Your task to perform on an android device: Go to Reddit.com Image 0: 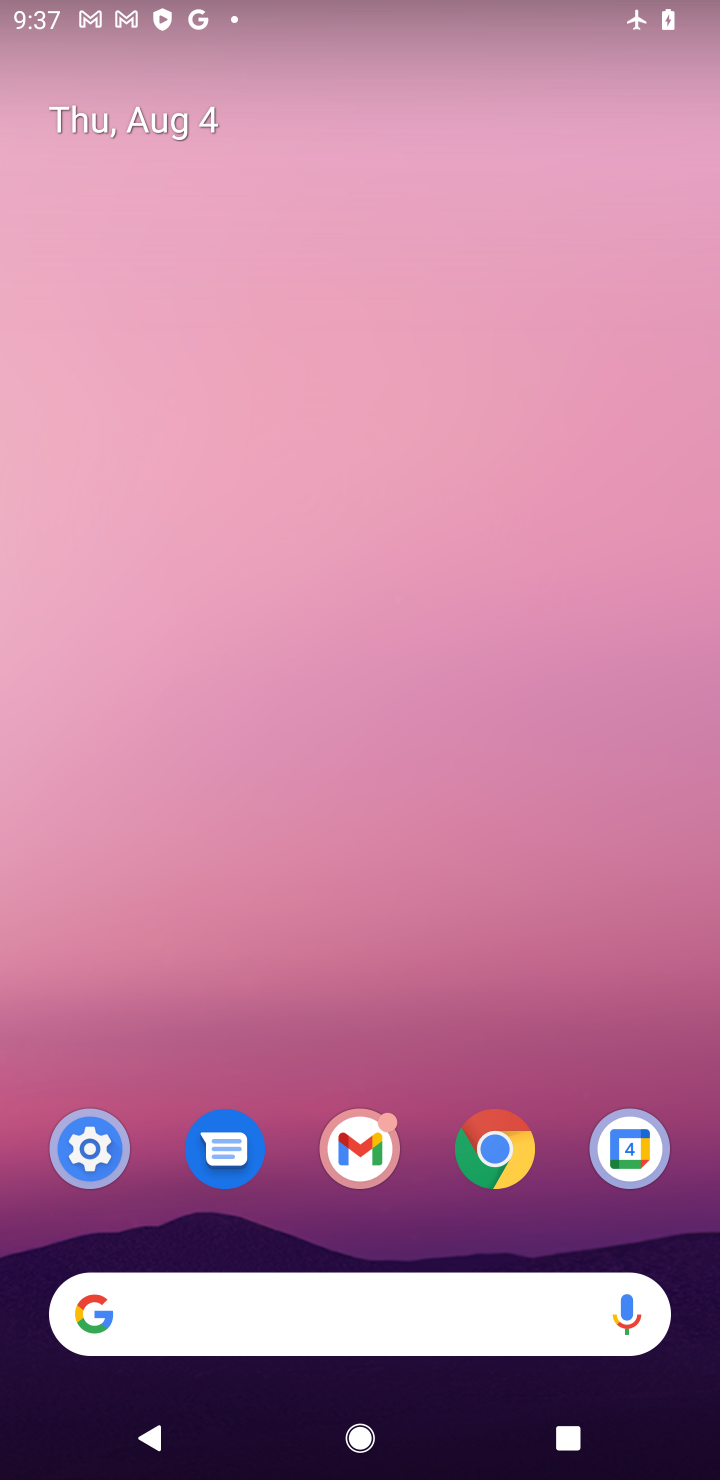
Step 0: click (494, 1136)
Your task to perform on an android device: Go to Reddit.com Image 1: 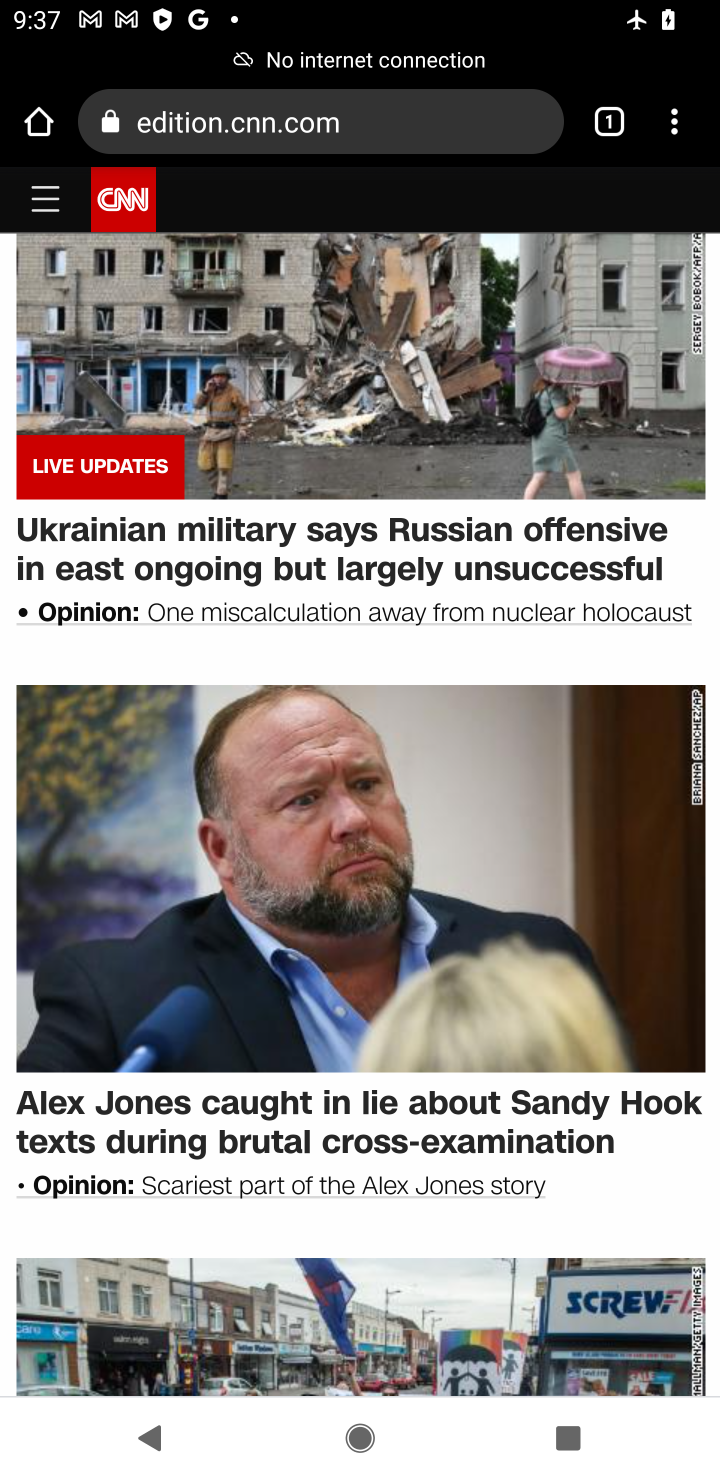
Step 1: click (416, 165)
Your task to perform on an android device: Go to Reddit.com Image 2: 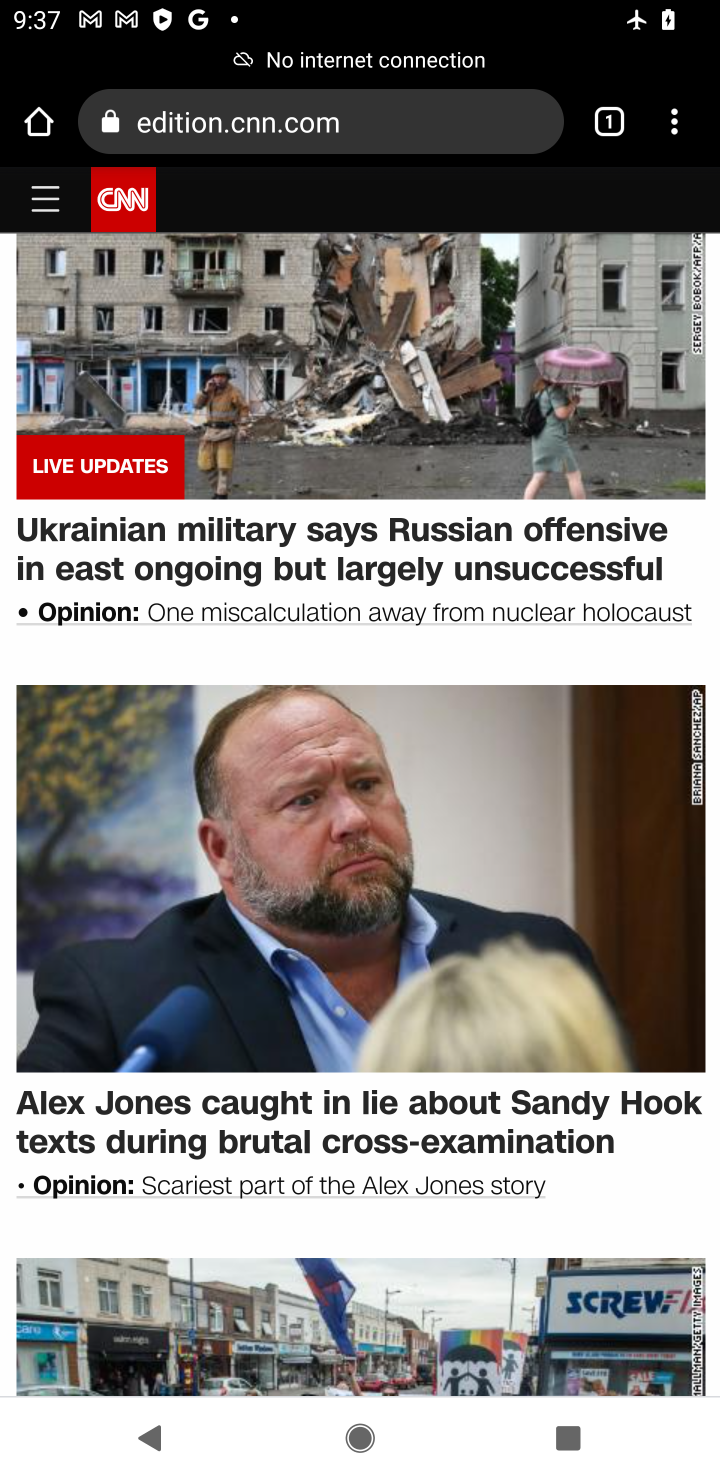
Step 2: click (384, 104)
Your task to perform on an android device: Go to Reddit.com Image 3: 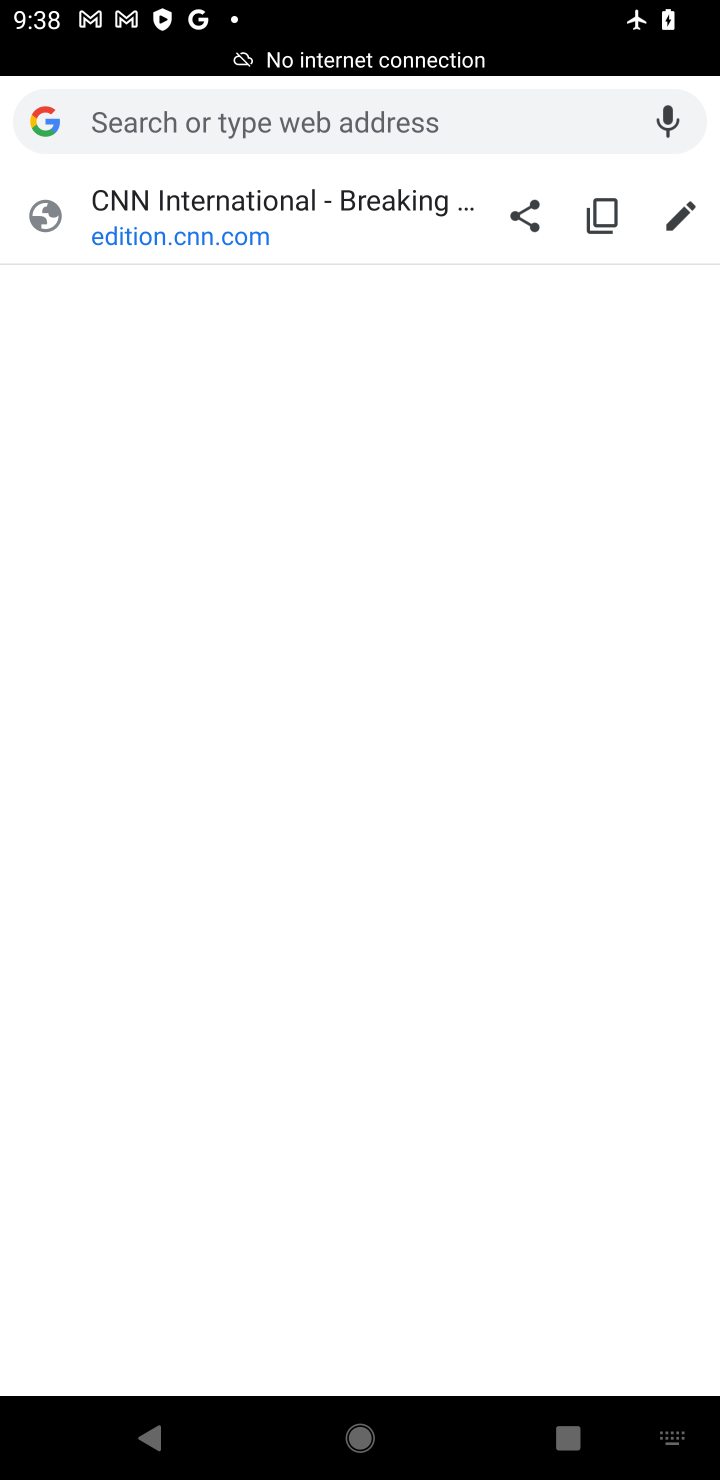
Step 3: type "reddit.com"
Your task to perform on an android device: Go to Reddit.com Image 4: 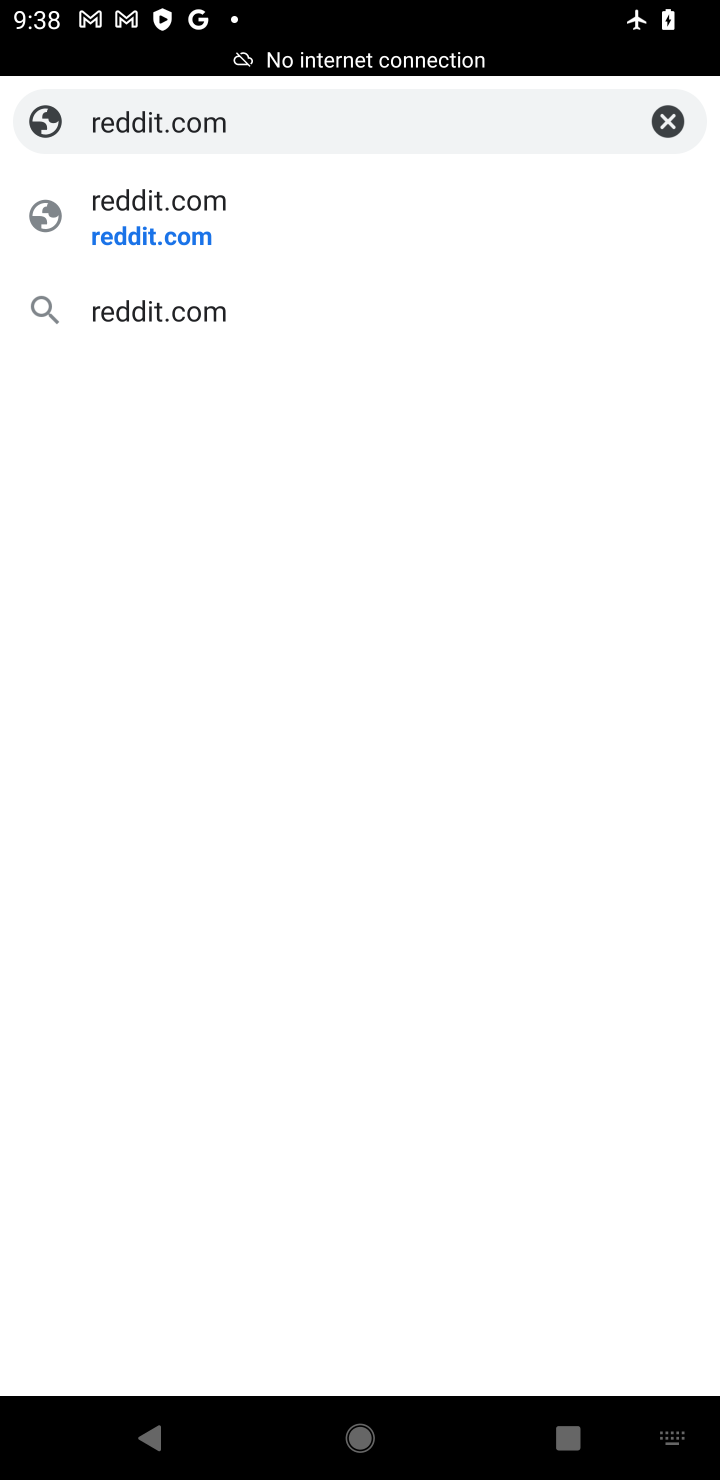
Step 4: click (142, 213)
Your task to perform on an android device: Go to Reddit.com Image 5: 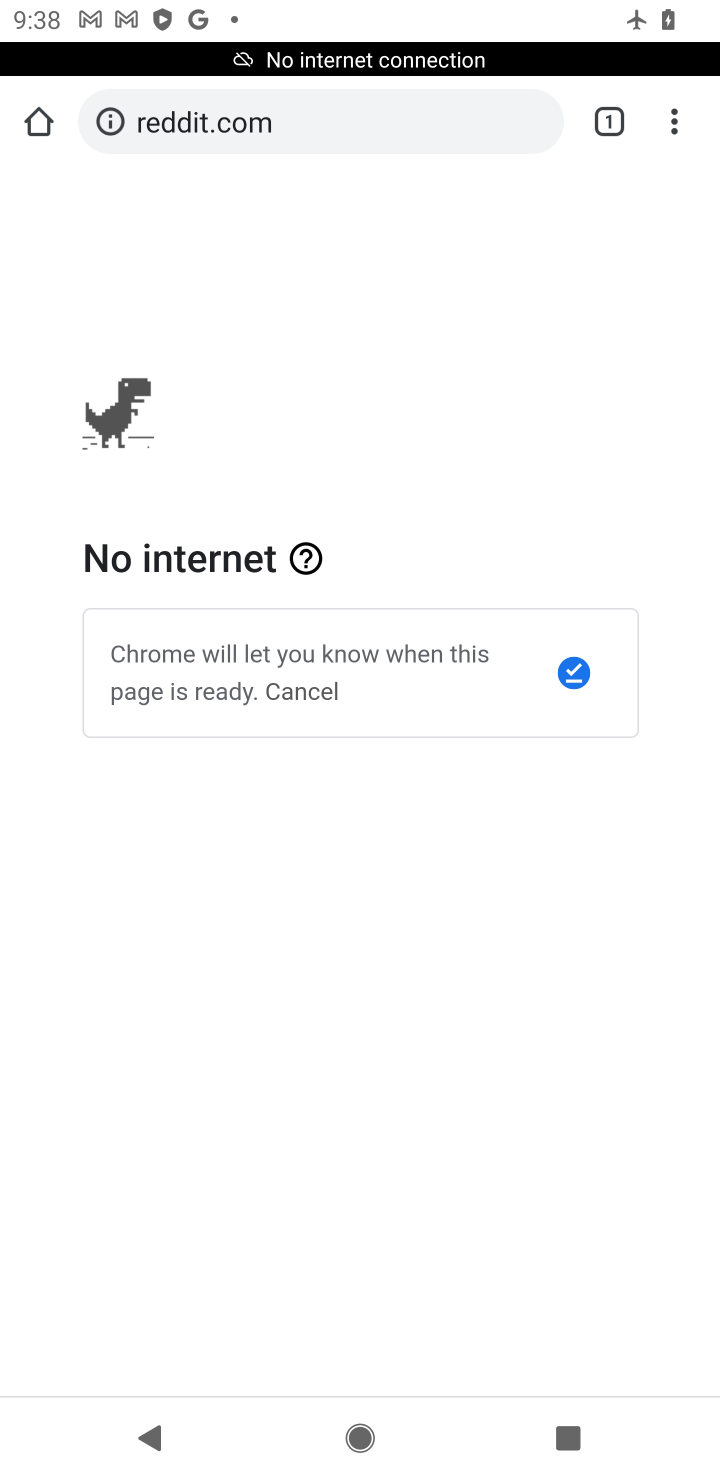
Step 5: task complete